Your task to perform on an android device: Open settings on Google Maps Image 0: 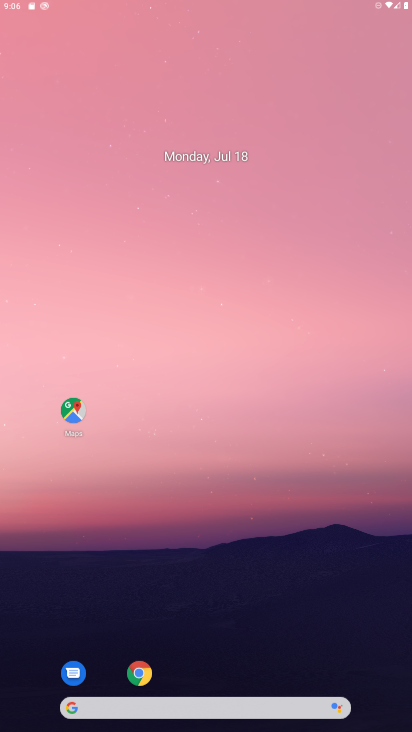
Step 0: press home button
Your task to perform on an android device: Open settings on Google Maps Image 1: 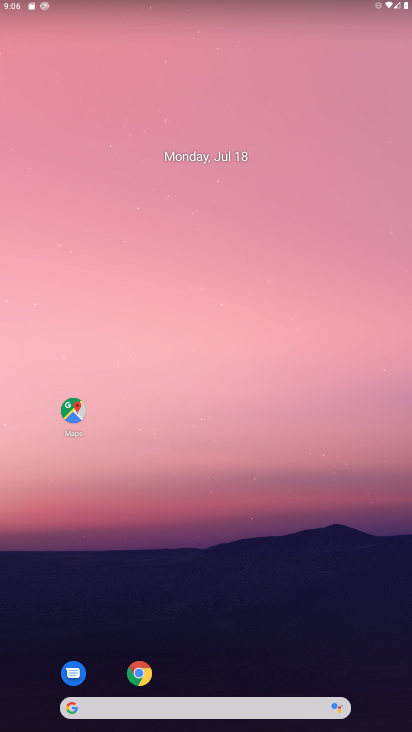
Step 1: drag from (259, 615) to (306, 140)
Your task to perform on an android device: Open settings on Google Maps Image 2: 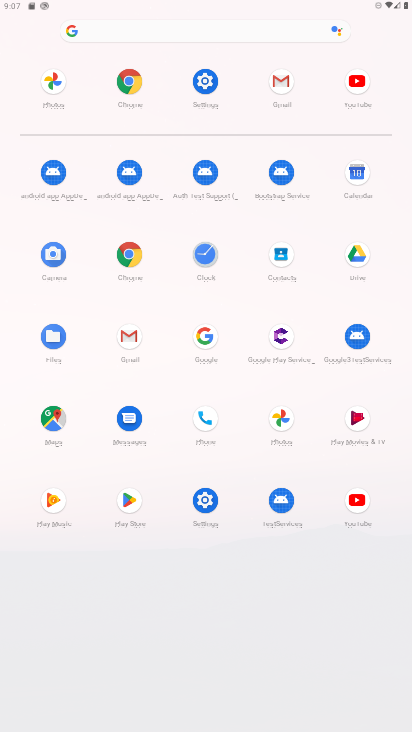
Step 2: click (47, 416)
Your task to perform on an android device: Open settings on Google Maps Image 3: 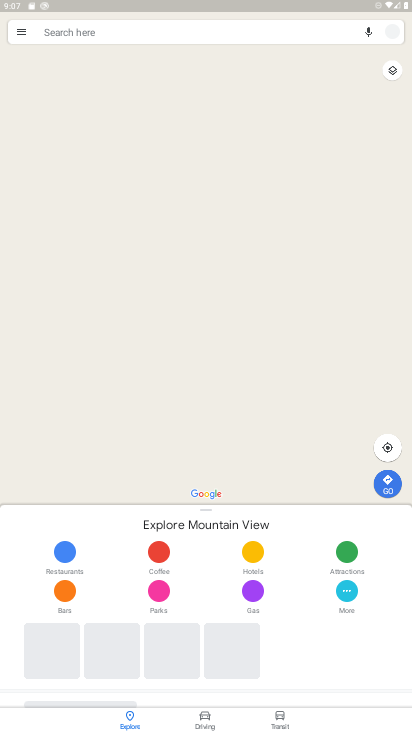
Step 3: click (20, 35)
Your task to perform on an android device: Open settings on Google Maps Image 4: 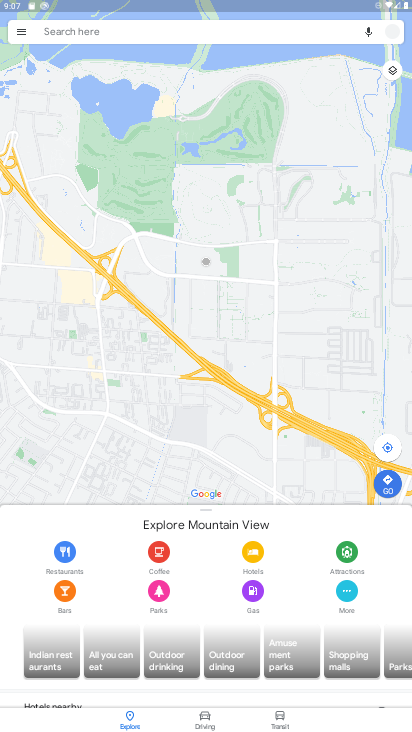
Step 4: click (20, 35)
Your task to perform on an android device: Open settings on Google Maps Image 5: 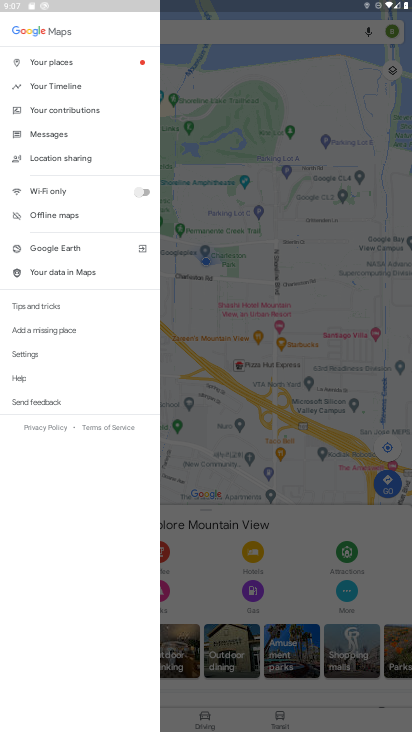
Step 5: click (23, 349)
Your task to perform on an android device: Open settings on Google Maps Image 6: 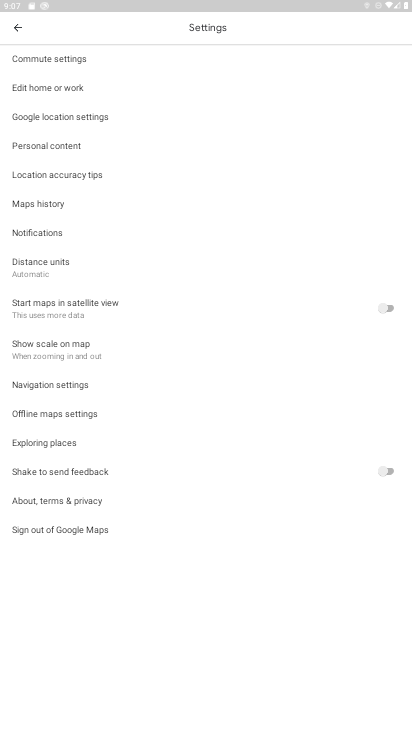
Step 6: task complete